Your task to perform on an android device: Go to Wikipedia Image 0: 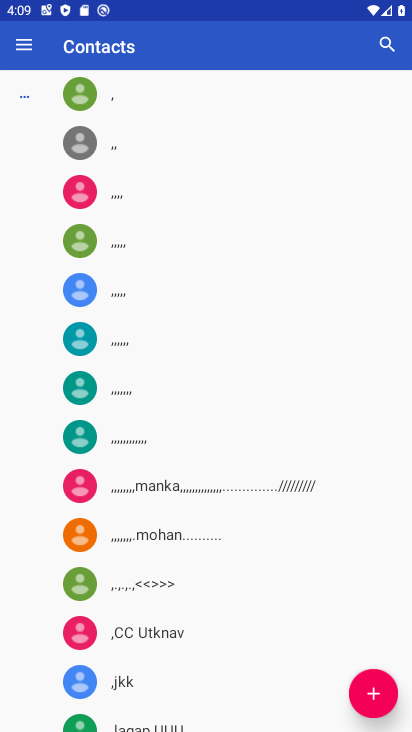
Step 0: press back button
Your task to perform on an android device: Go to Wikipedia Image 1: 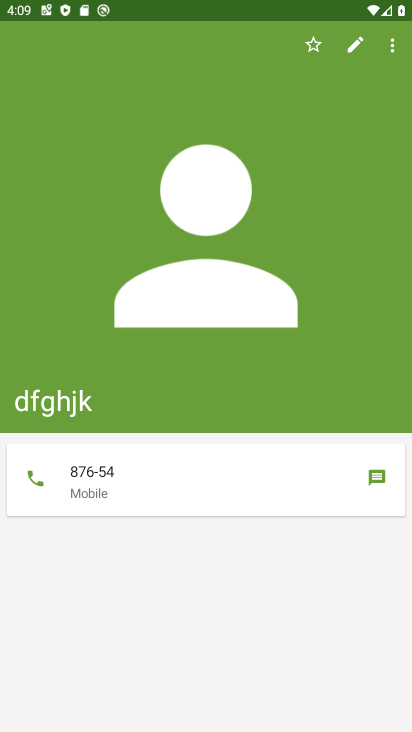
Step 1: press home button
Your task to perform on an android device: Go to Wikipedia Image 2: 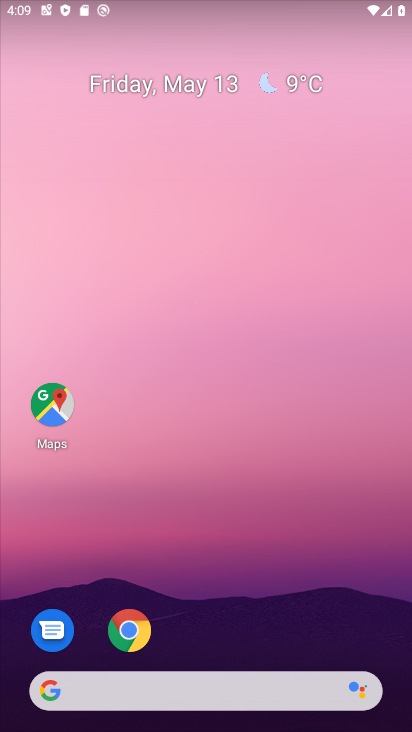
Step 2: drag from (292, 564) to (203, 35)
Your task to perform on an android device: Go to Wikipedia Image 3: 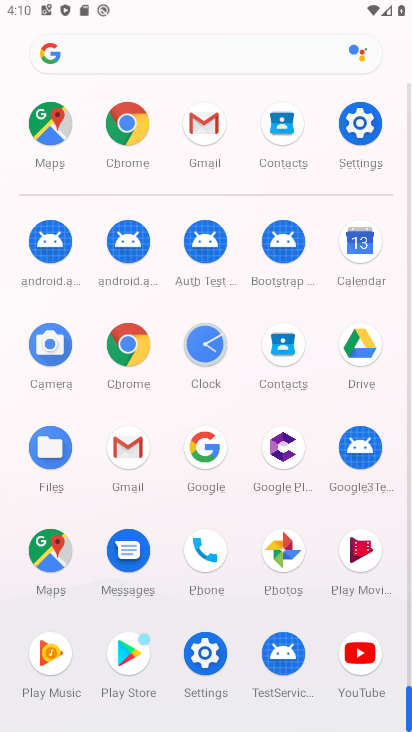
Step 3: click (129, 343)
Your task to perform on an android device: Go to Wikipedia Image 4: 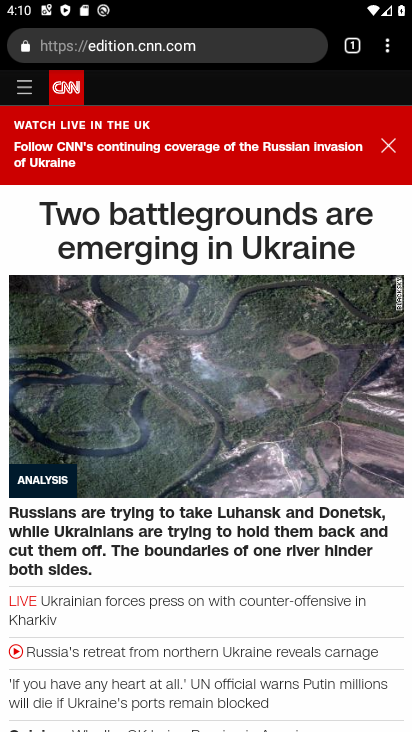
Step 4: click (154, 42)
Your task to perform on an android device: Go to Wikipedia Image 5: 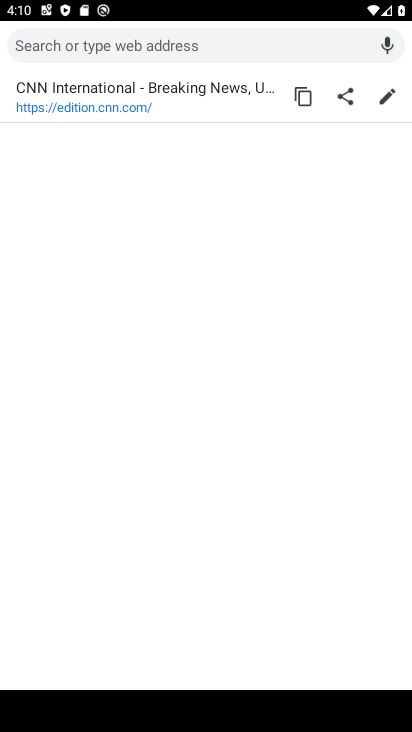
Step 5: type "Wikipedia"
Your task to perform on an android device: Go to Wikipedia Image 6: 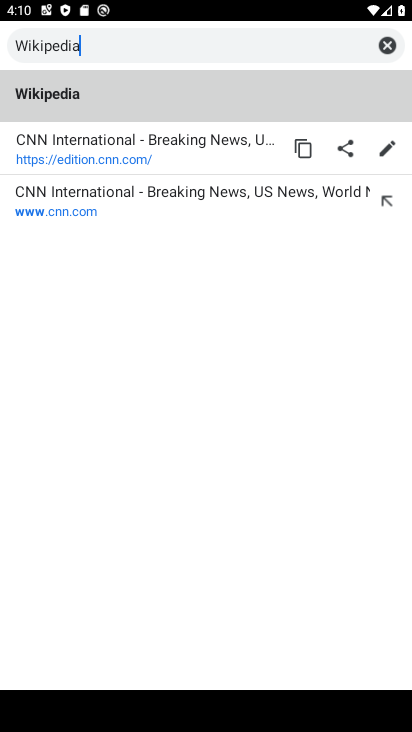
Step 6: type ""
Your task to perform on an android device: Go to Wikipedia Image 7: 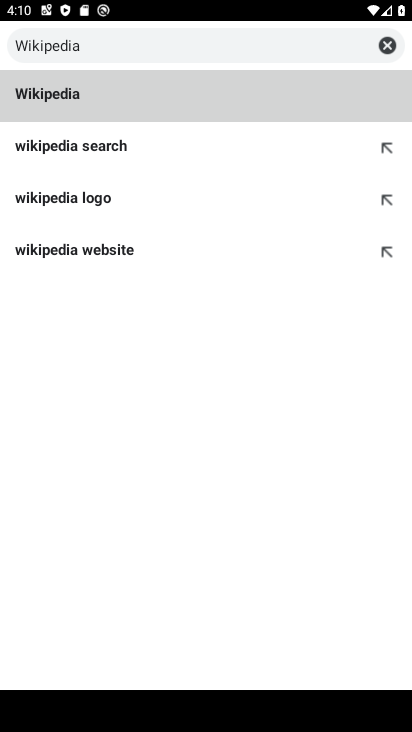
Step 7: click (91, 100)
Your task to perform on an android device: Go to Wikipedia Image 8: 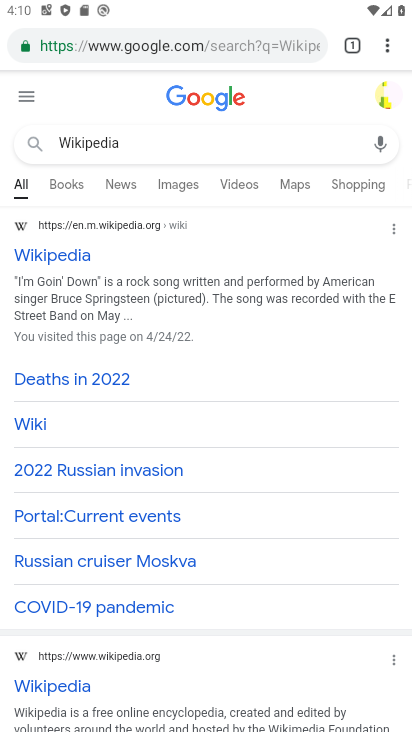
Step 8: click (55, 252)
Your task to perform on an android device: Go to Wikipedia Image 9: 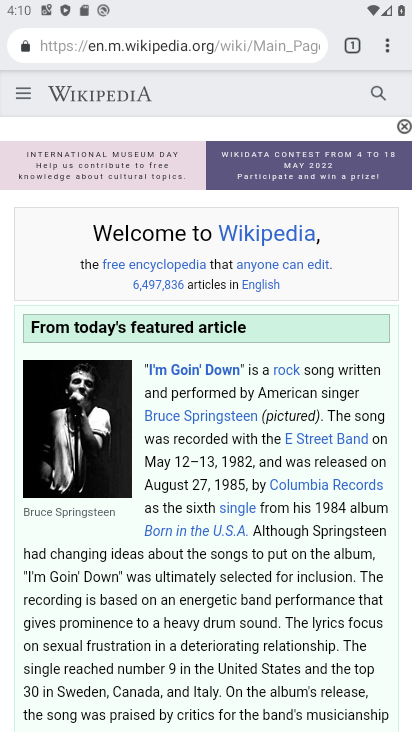
Step 9: task complete